Your task to perform on an android device: Toggle the flashlight Image 0: 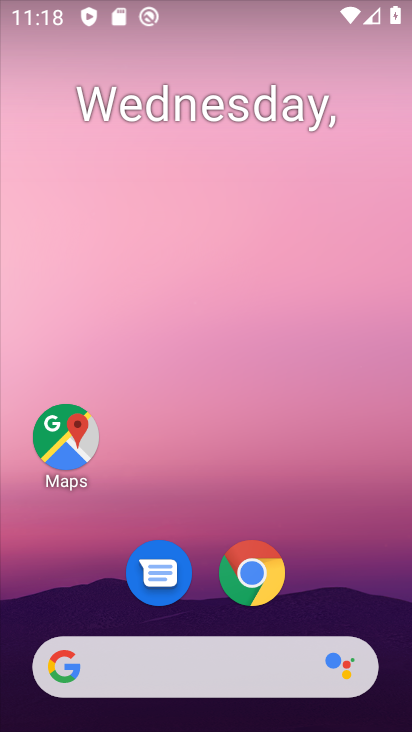
Step 0: drag from (346, 564) to (318, 285)
Your task to perform on an android device: Toggle the flashlight Image 1: 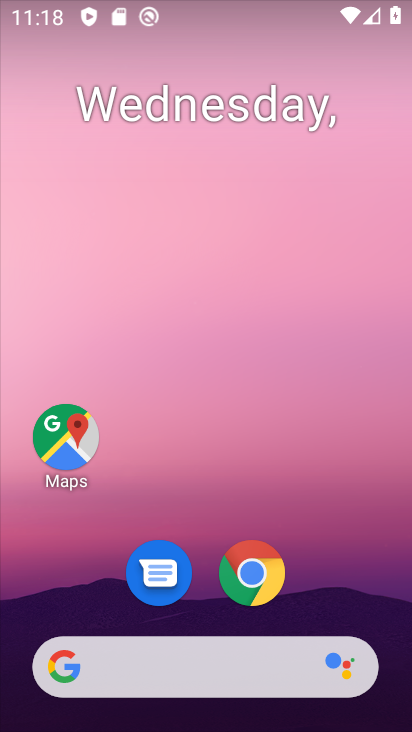
Step 1: drag from (272, 15) to (296, 475)
Your task to perform on an android device: Toggle the flashlight Image 2: 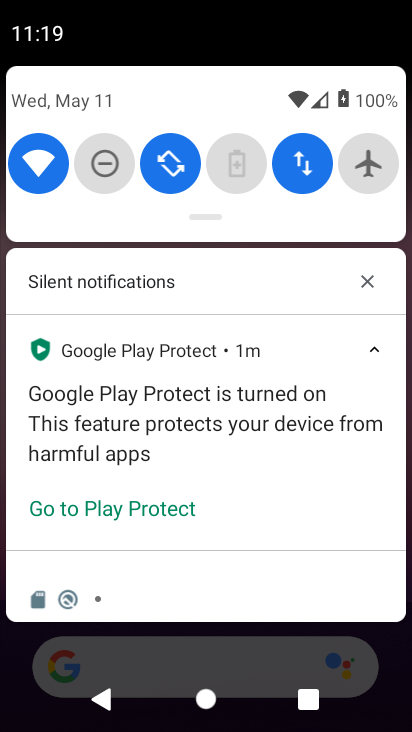
Step 2: drag from (219, 210) to (239, 562)
Your task to perform on an android device: Toggle the flashlight Image 3: 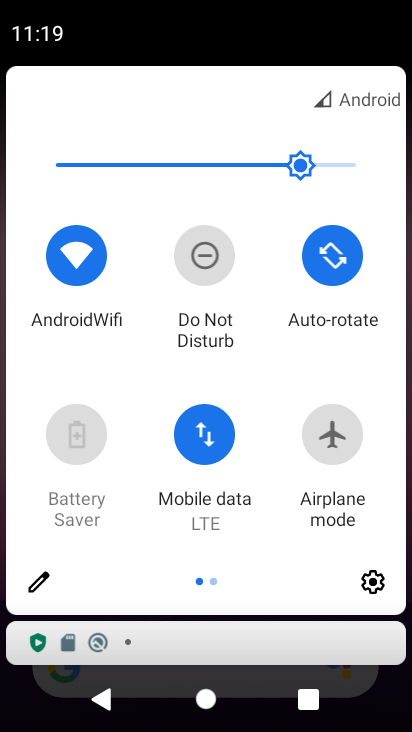
Step 3: click (42, 579)
Your task to perform on an android device: Toggle the flashlight Image 4: 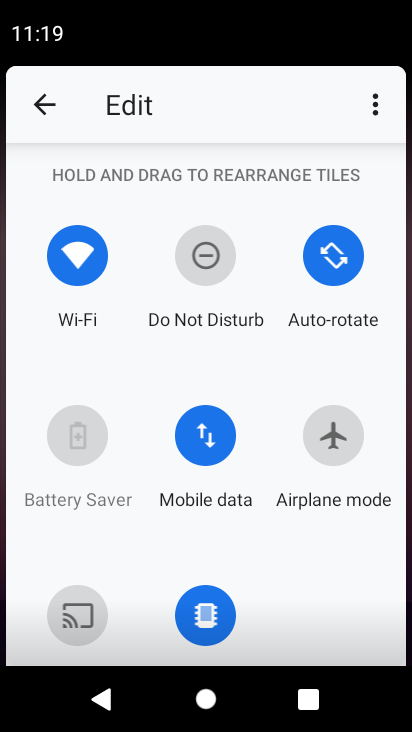
Step 4: task complete